Your task to perform on an android device: turn on airplane mode Image 0: 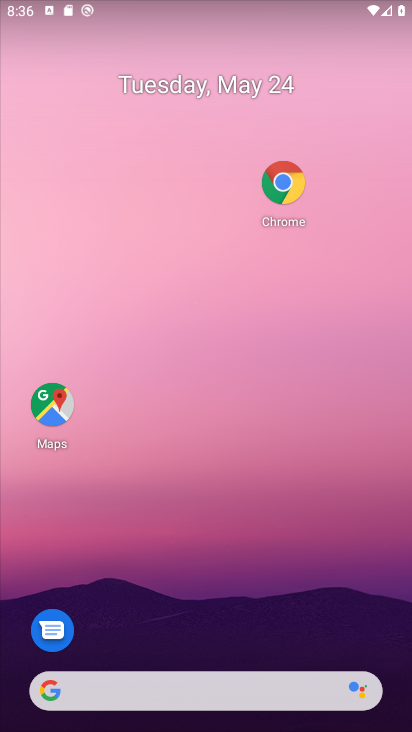
Step 0: press home button
Your task to perform on an android device: turn on airplane mode Image 1: 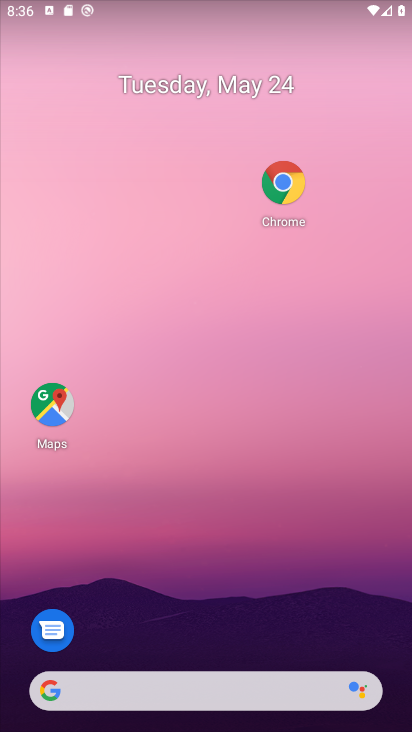
Step 1: drag from (259, 611) to (243, 41)
Your task to perform on an android device: turn on airplane mode Image 2: 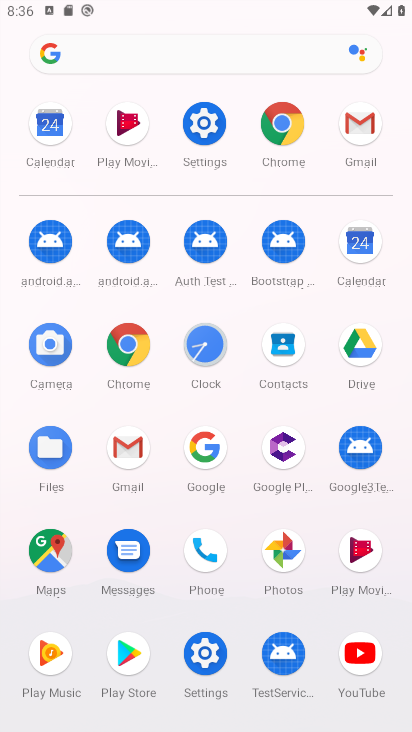
Step 2: click (209, 131)
Your task to perform on an android device: turn on airplane mode Image 3: 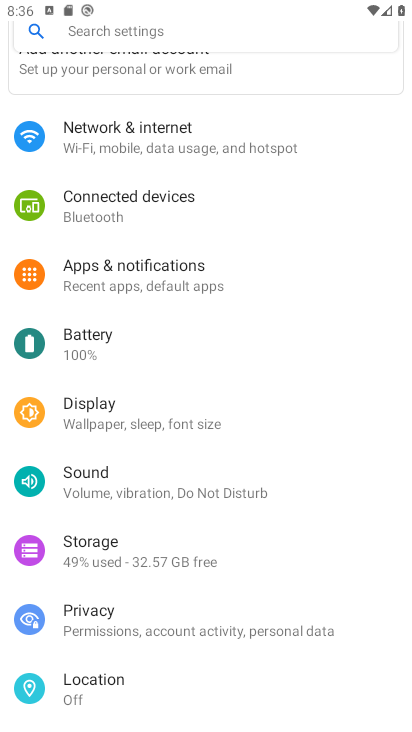
Step 3: click (92, 136)
Your task to perform on an android device: turn on airplane mode Image 4: 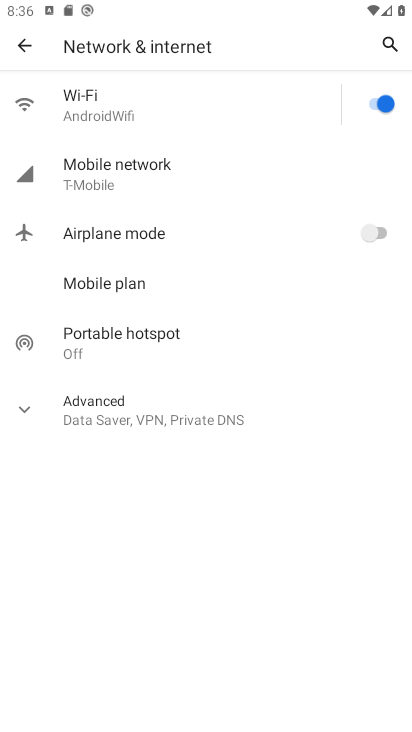
Step 4: click (368, 234)
Your task to perform on an android device: turn on airplane mode Image 5: 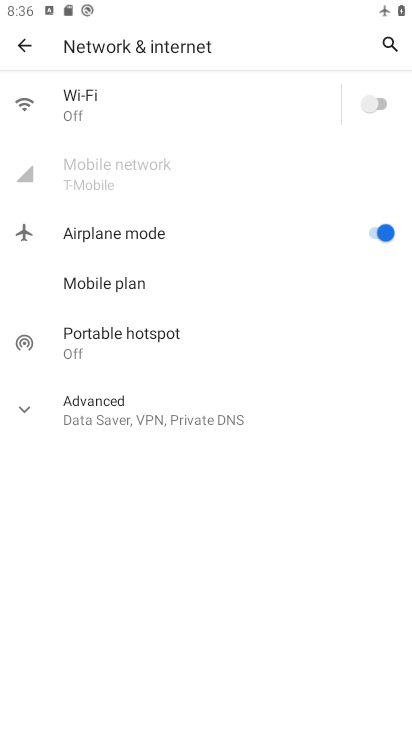
Step 5: task complete